Your task to perform on an android device: turn on priority inbox in the gmail app Image 0: 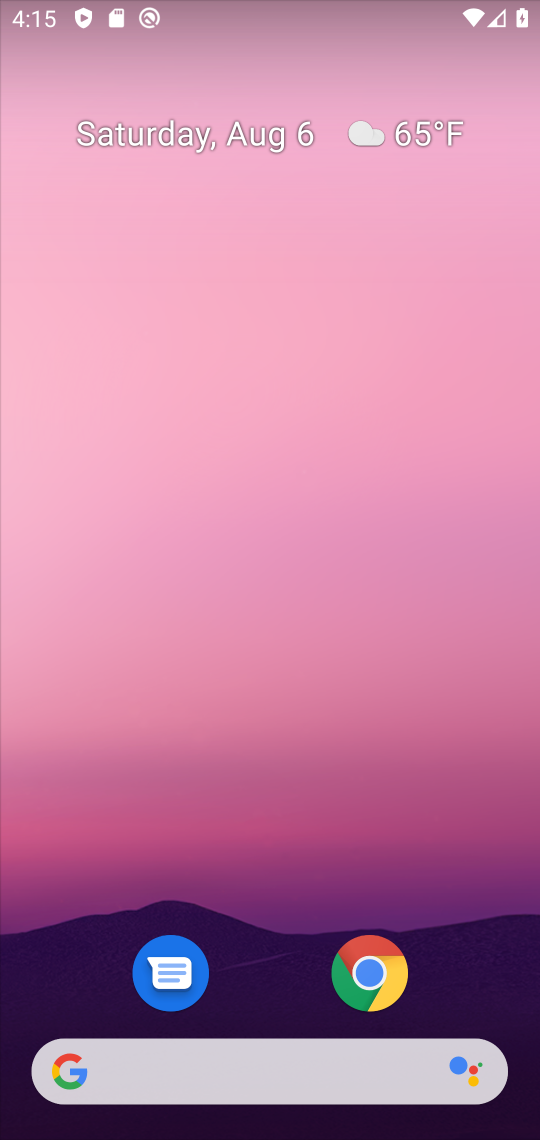
Step 0: drag from (251, 976) to (218, 319)
Your task to perform on an android device: turn on priority inbox in the gmail app Image 1: 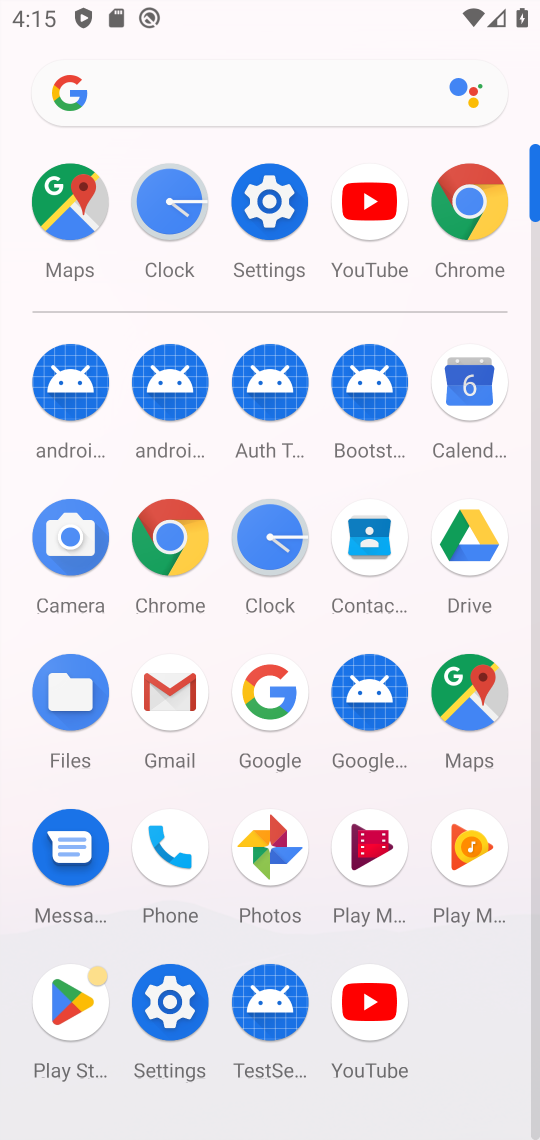
Step 1: click (186, 699)
Your task to perform on an android device: turn on priority inbox in the gmail app Image 2: 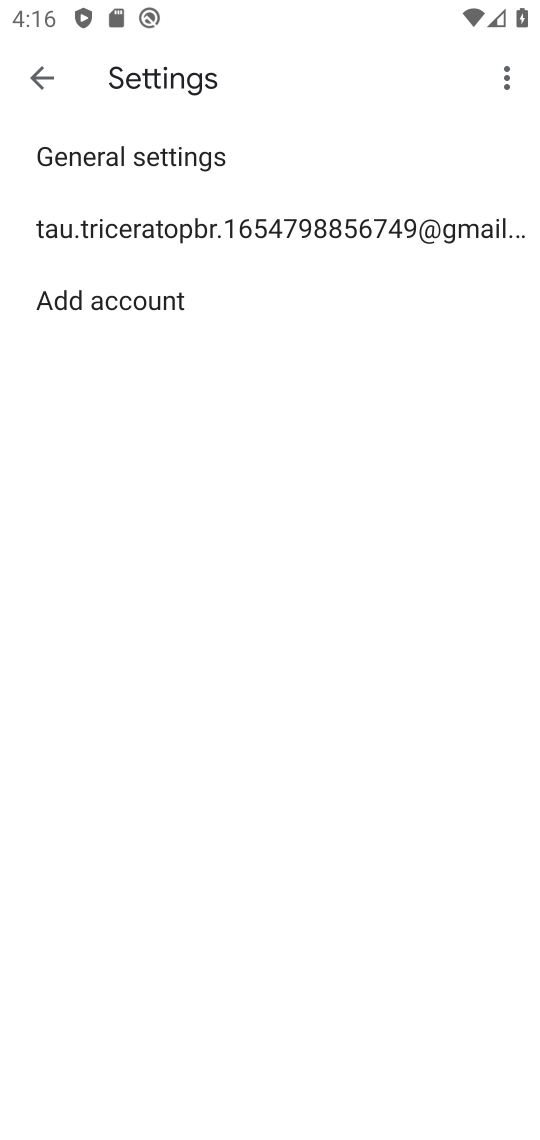
Step 2: click (329, 225)
Your task to perform on an android device: turn on priority inbox in the gmail app Image 3: 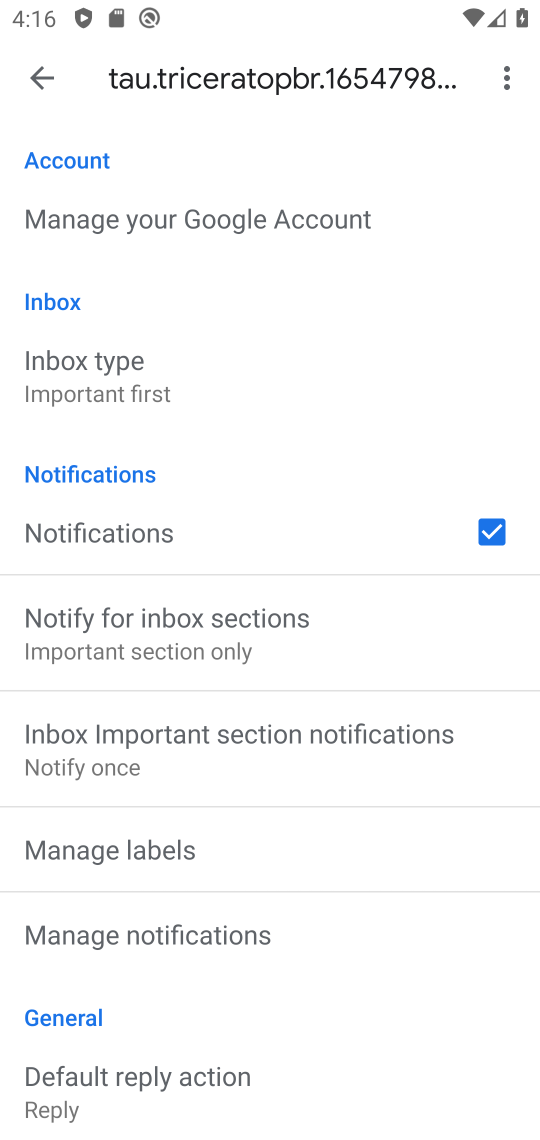
Step 3: click (152, 387)
Your task to perform on an android device: turn on priority inbox in the gmail app Image 4: 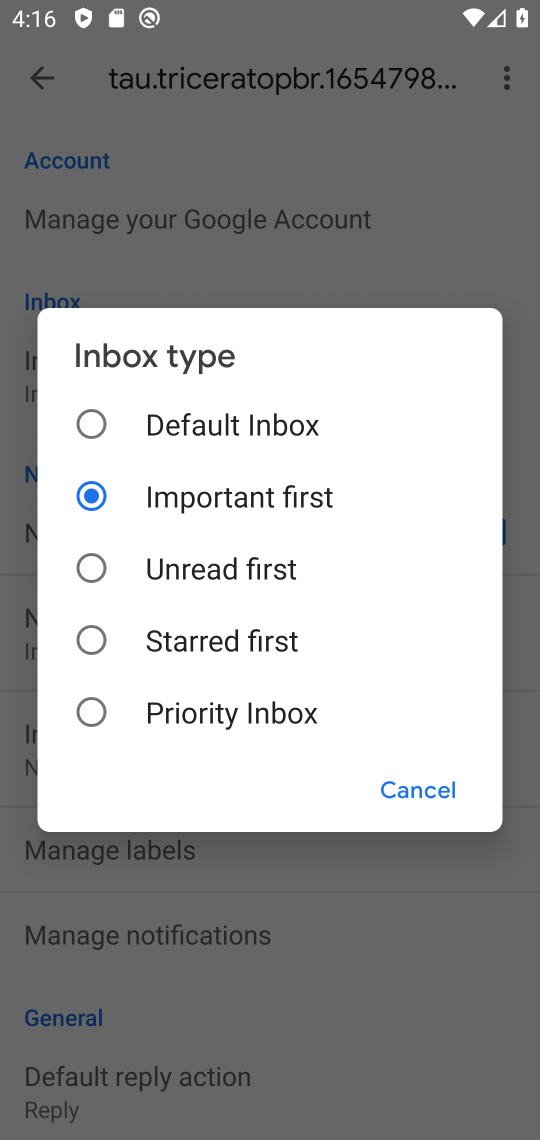
Step 4: task complete